Your task to perform on an android device: open sync settings in chrome Image 0: 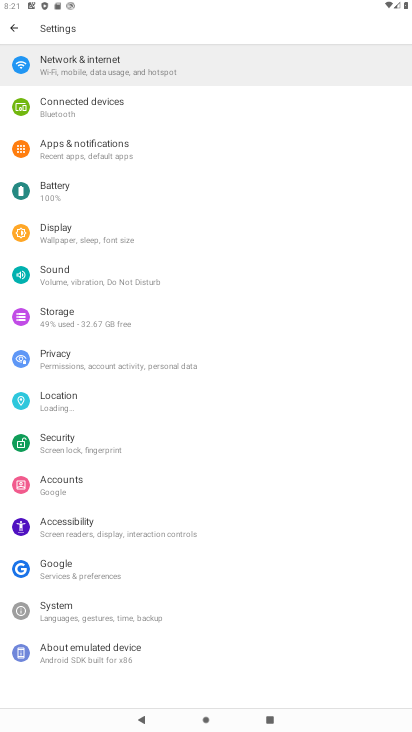
Step 0: press home button
Your task to perform on an android device: open sync settings in chrome Image 1: 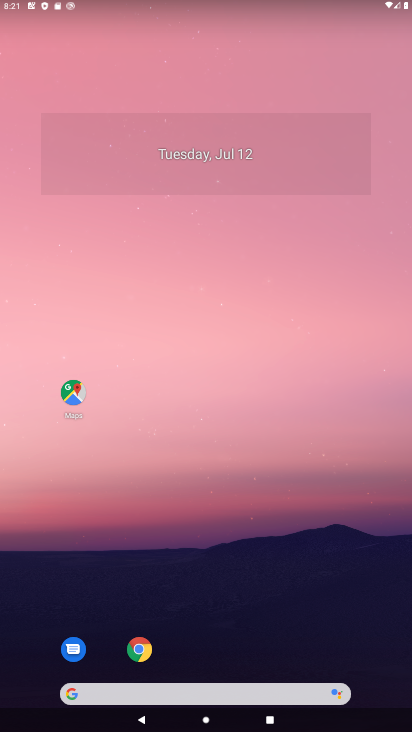
Step 1: click (139, 649)
Your task to perform on an android device: open sync settings in chrome Image 2: 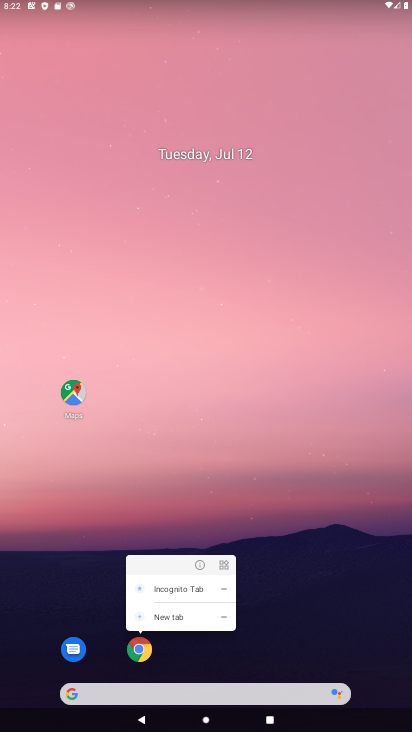
Step 2: click (137, 646)
Your task to perform on an android device: open sync settings in chrome Image 3: 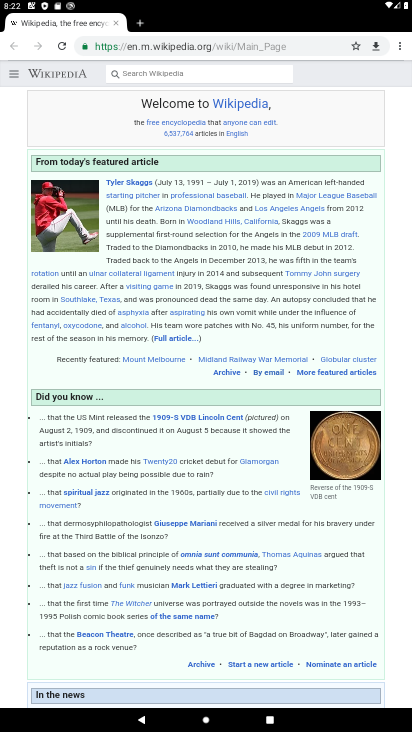
Step 3: click (396, 47)
Your task to perform on an android device: open sync settings in chrome Image 4: 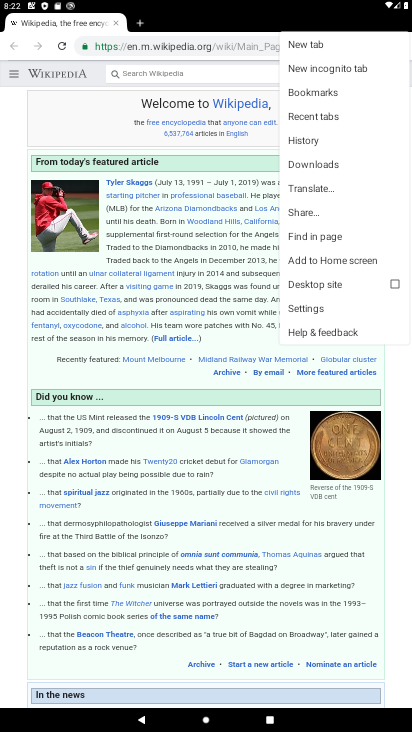
Step 4: click (315, 307)
Your task to perform on an android device: open sync settings in chrome Image 5: 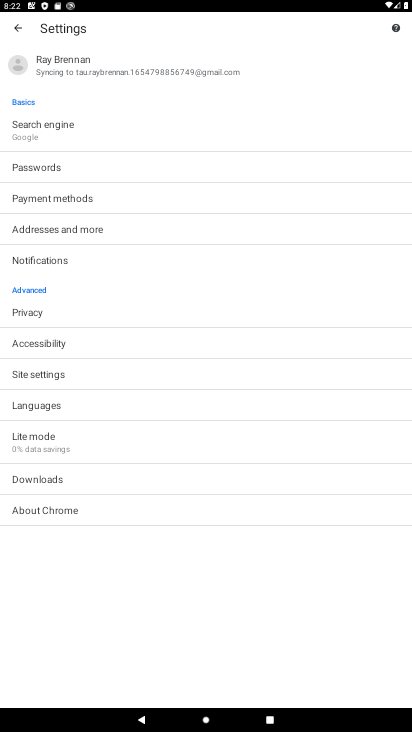
Step 5: click (42, 368)
Your task to perform on an android device: open sync settings in chrome Image 6: 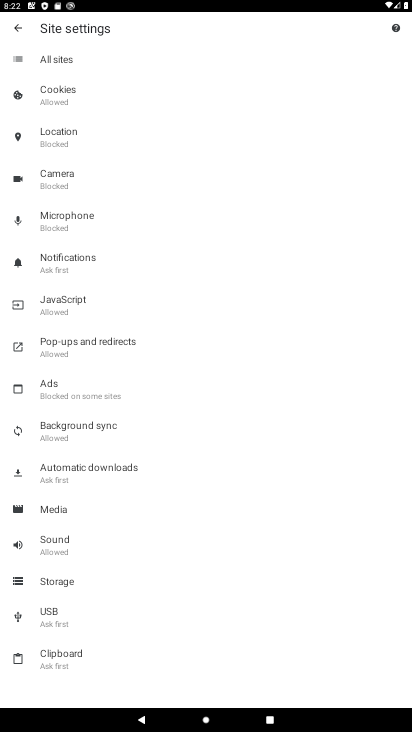
Step 6: click (95, 427)
Your task to perform on an android device: open sync settings in chrome Image 7: 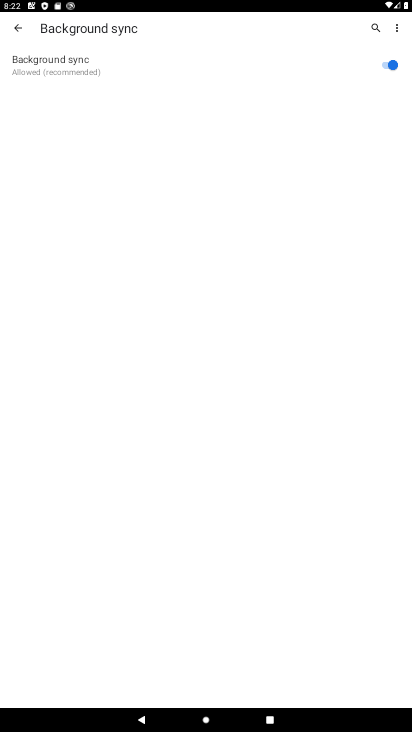
Step 7: task complete